Your task to perform on an android device: toggle priority inbox in the gmail app Image 0: 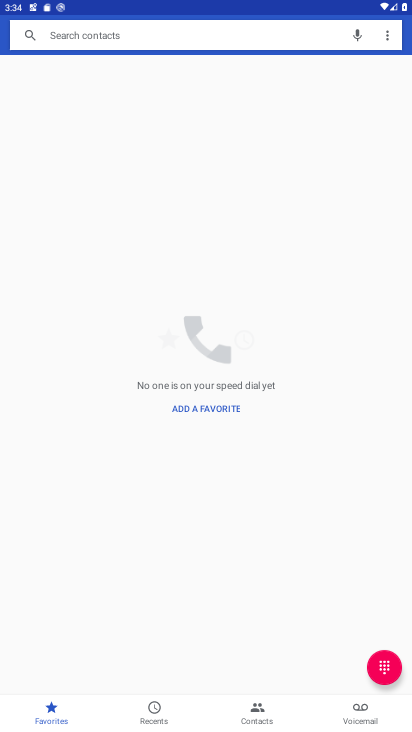
Step 0: press home button
Your task to perform on an android device: toggle priority inbox in the gmail app Image 1: 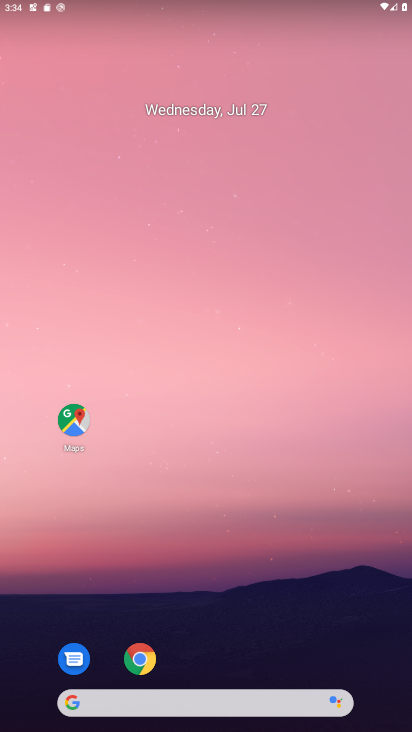
Step 1: drag from (178, 720) to (251, 148)
Your task to perform on an android device: toggle priority inbox in the gmail app Image 2: 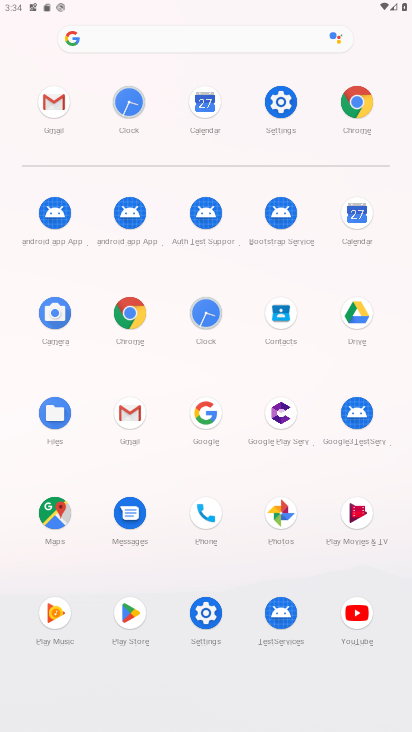
Step 2: click (63, 105)
Your task to perform on an android device: toggle priority inbox in the gmail app Image 3: 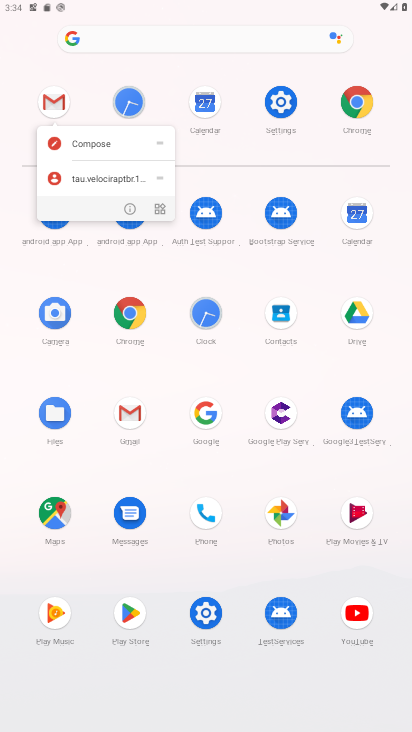
Step 3: click (55, 93)
Your task to perform on an android device: toggle priority inbox in the gmail app Image 4: 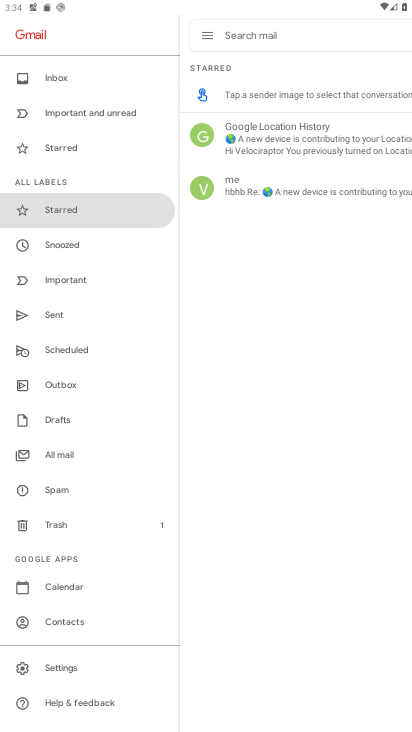
Step 4: drag from (76, 633) to (80, 222)
Your task to perform on an android device: toggle priority inbox in the gmail app Image 5: 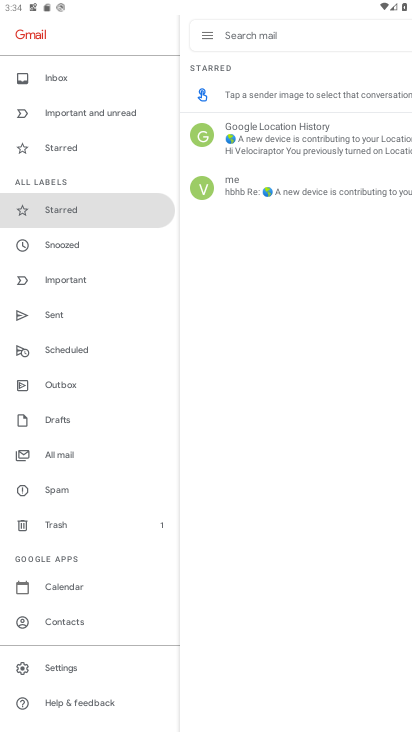
Step 5: click (65, 674)
Your task to perform on an android device: toggle priority inbox in the gmail app Image 6: 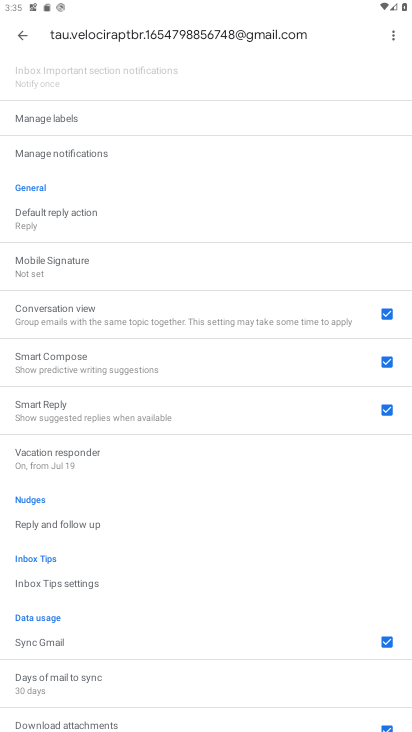
Step 6: click (44, 229)
Your task to perform on an android device: toggle priority inbox in the gmail app Image 7: 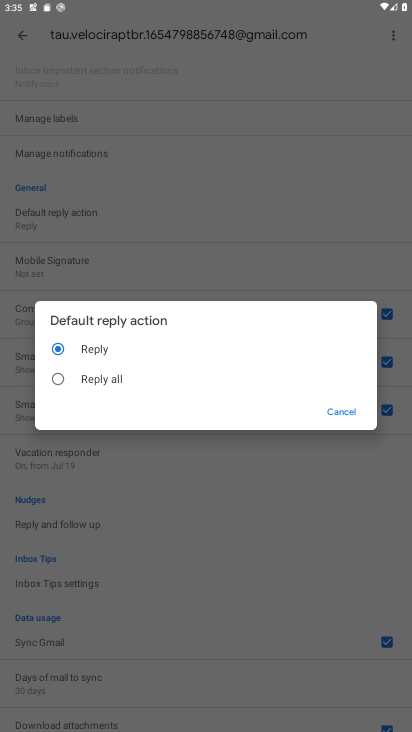
Step 7: click (347, 416)
Your task to perform on an android device: toggle priority inbox in the gmail app Image 8: 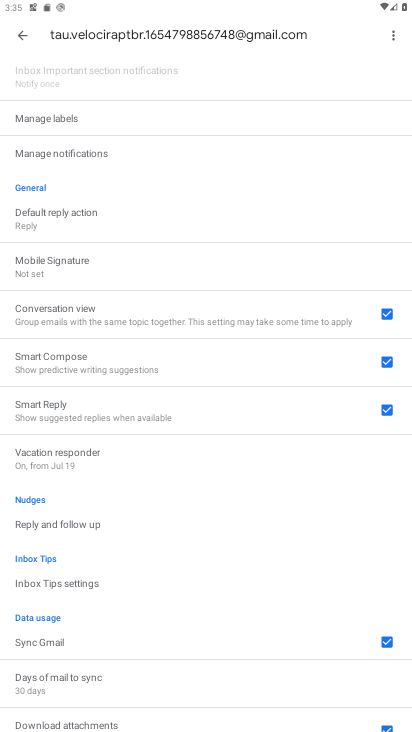
Step 8: drag from (175, 201) to (174, 683)
Your task to perform on an android device: toggle priority inbox in the gmail app Image 9: 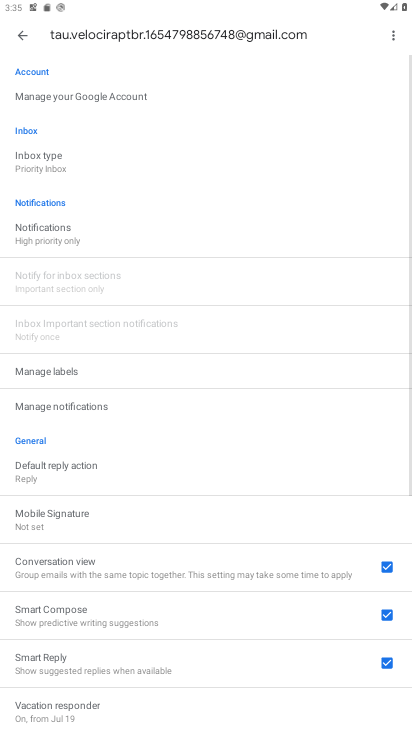
Step 9: click (35, 155)
Your task to perform on an android device: toggle priority inbox in the gmail app Image 10: 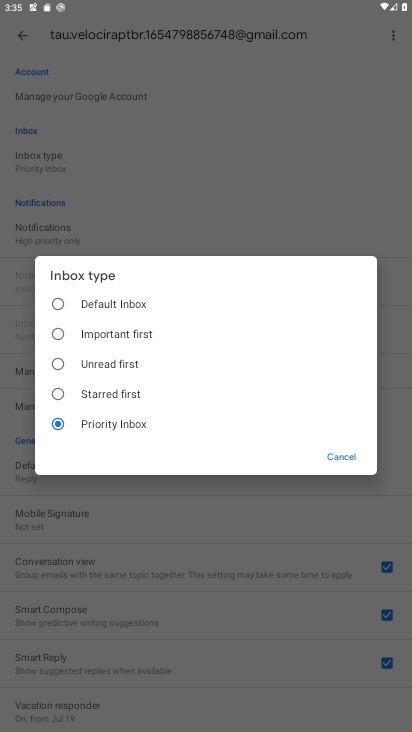
Step 10: click (93, 297)
Your task to perform on an android device: toggle priority inbox in the gmail app Image 11: 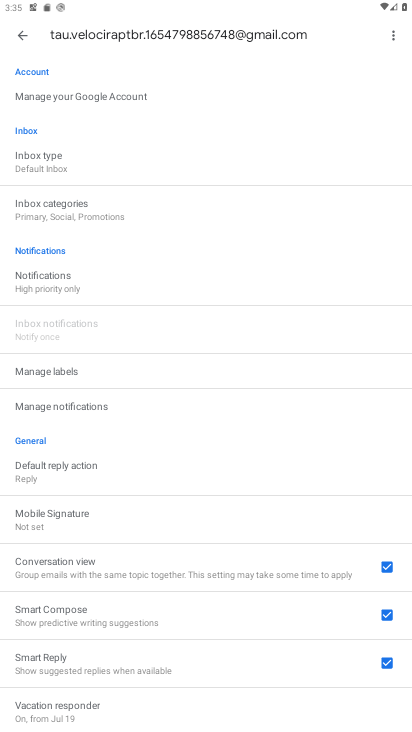
Step 11: task complete